Your task to perform on an android device: change the upload size in google photos Image 0: 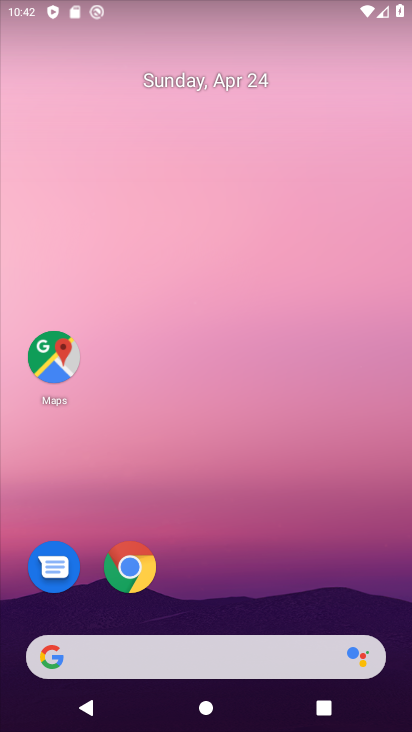
Step 0: drag from (296, 577) to (247, 69)
Your task to perform on an android device: change the upload size in google photos Image 1: 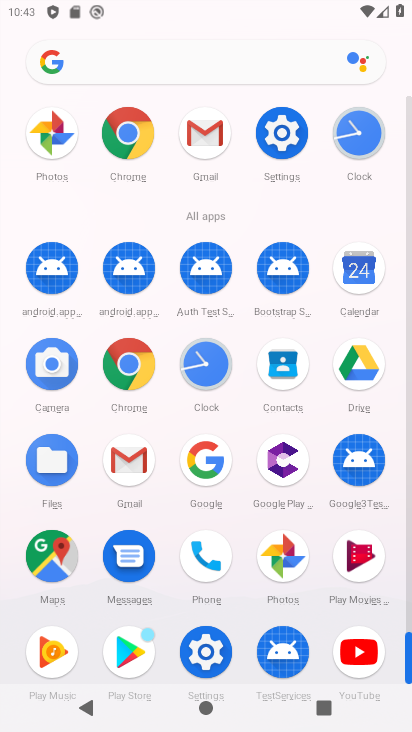
Step 1: click (286, 560)
Your task to perform on an android device: change the upload size in google photos Image 2: 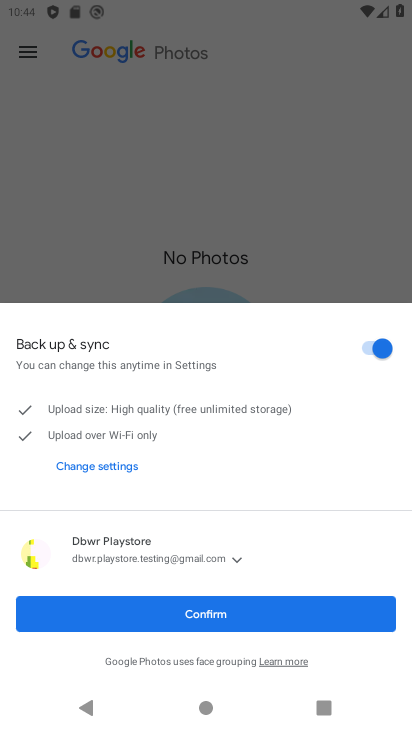
Step 2: click (220, 599)
Your task to perform on an android device: change the upload size in google photos Image 3: 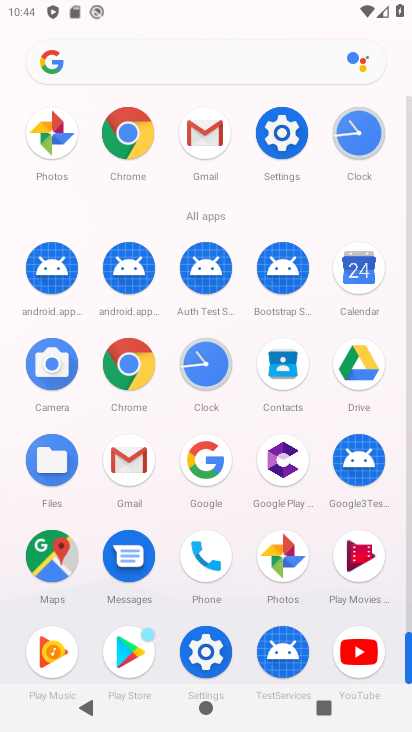
Step 3: click (290, 552)
Your task to perform on an android device: change the upload size in google photos Image 4: 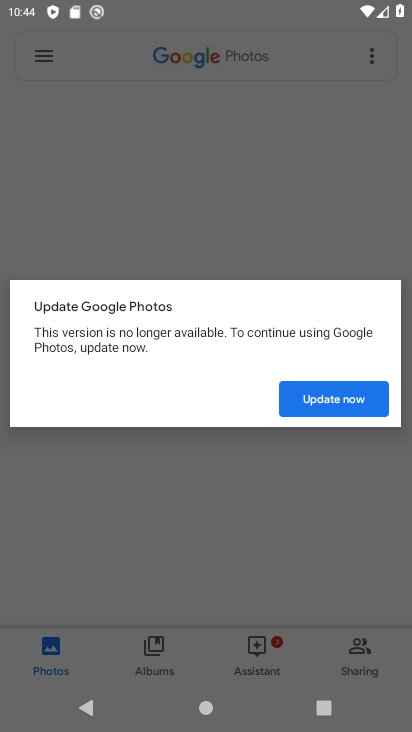
Step 4: click (344, 409)
Your task to perform on an android device: change the upload size in google photos Image 5: 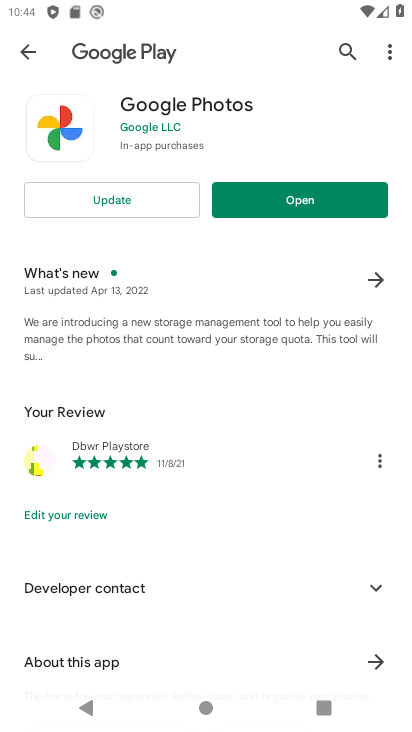
Step 5: click (169, 210)
Your task to perform on an android device: change the upload size in google photos Image 6: 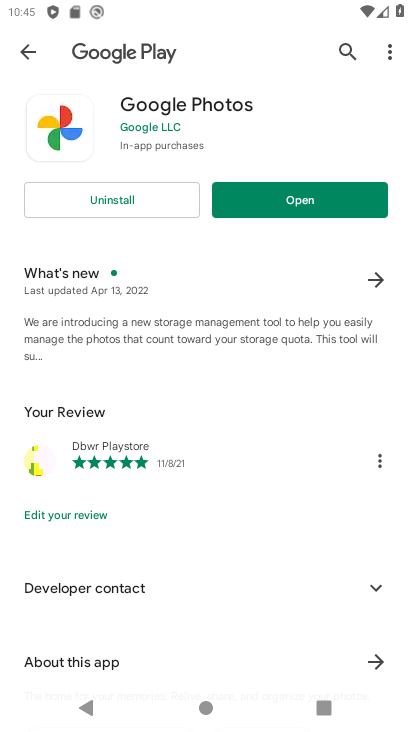
Step 6: click (300, 203)
Your task to perform on an android device: change the upload size in google photos Image 7: 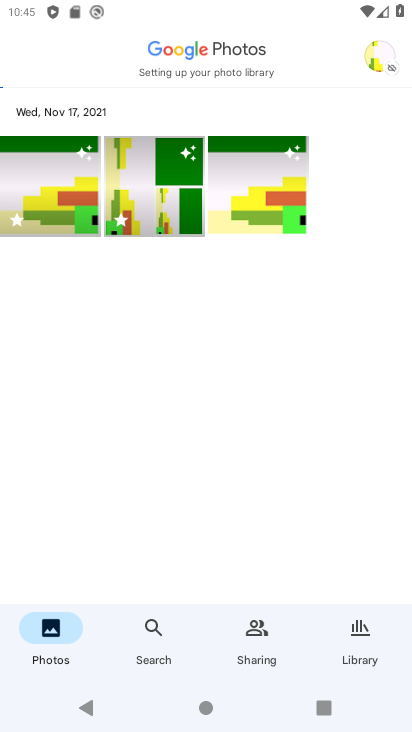
Step 7: click (388, 61)
Your task to perform on an android device: change the upload size in google photos Image 8: 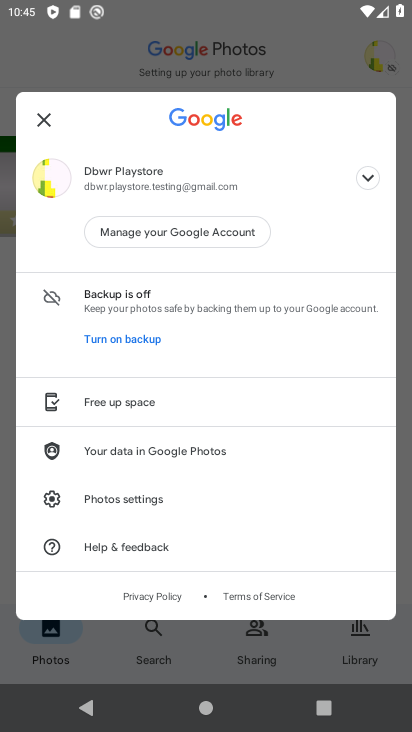
Step 8: click (349, 154)
Your task to perform on an android device: change the upload size in google photos Image 9: 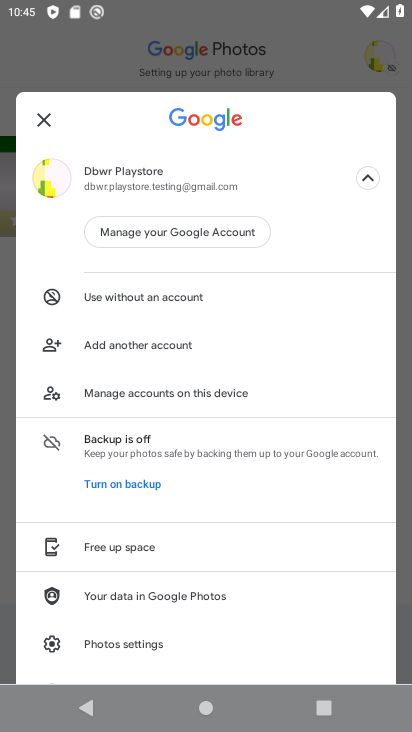
Step 9: drag from (166, 625) to (178, 301)
Your task to perform on an android device: change the upload size in google photos Image 10: 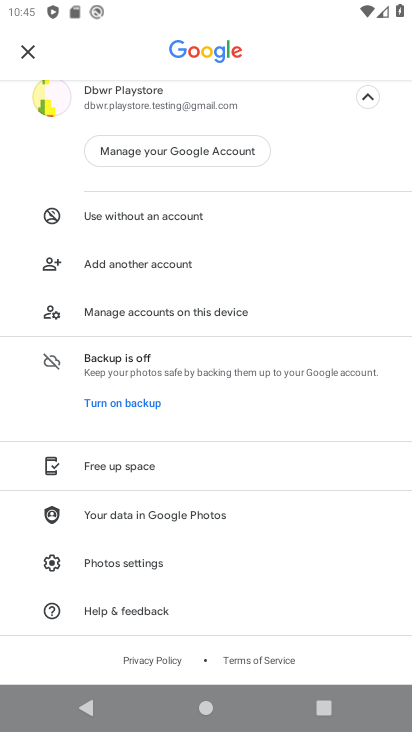
Step 10: click (156, 559)
Your task to perform on an android device: change the upload size in google photos Image 11: 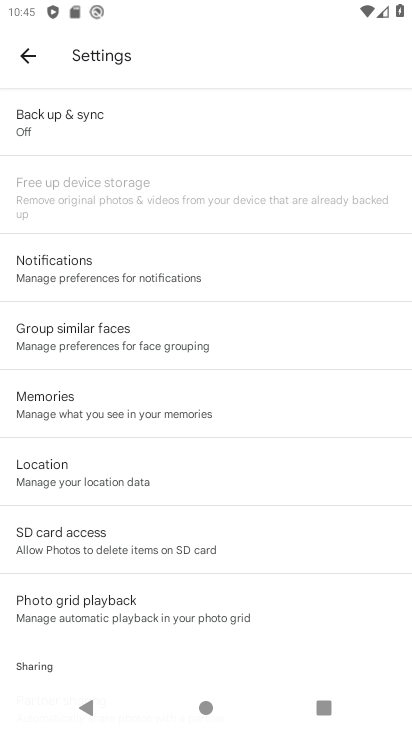
Step 11: click (103, 116)
Your task to perform on an android device: change the upload size in google photos Image 12: 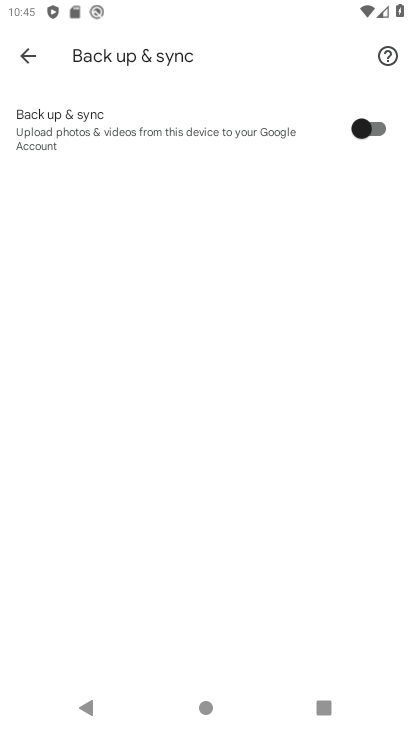
Step 12: click (371, 129)
Your task to perform on an android device: change the upload size in google photos Image 13: 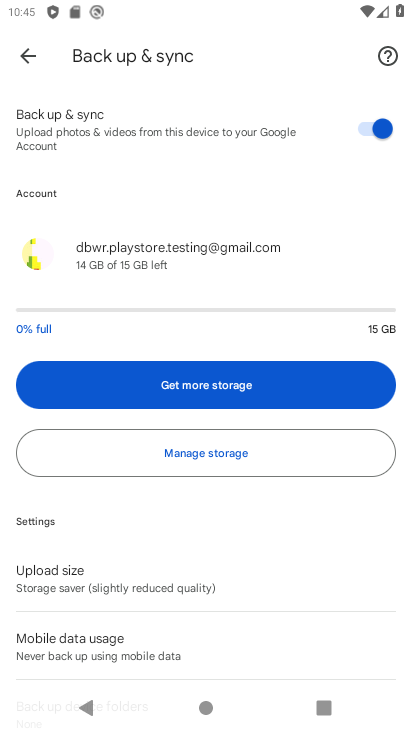
Step 13: click (131, 598)
Your task to perform on an android device: change the upload size in google photos Image 14: 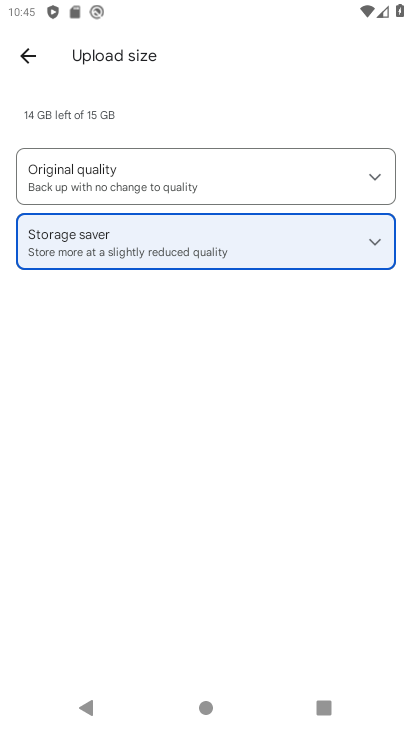
Step 14: click (220, 179)
Your task to perform on an android device: change the upload size in google photos Image 15: 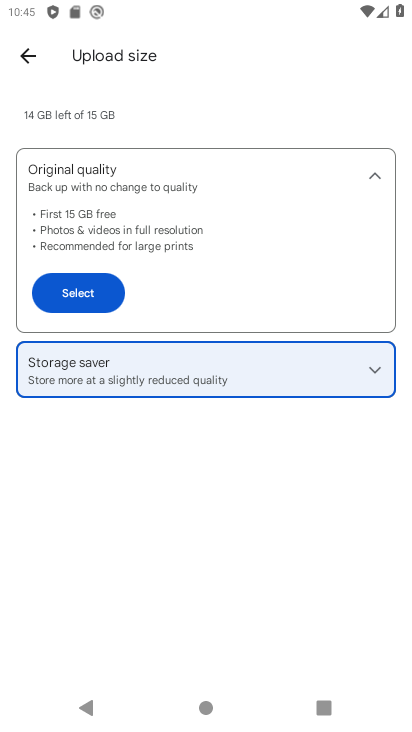
Step 15: click (89, 292)
Your task to perform on an android device: change the upload size in google photos Image 16: 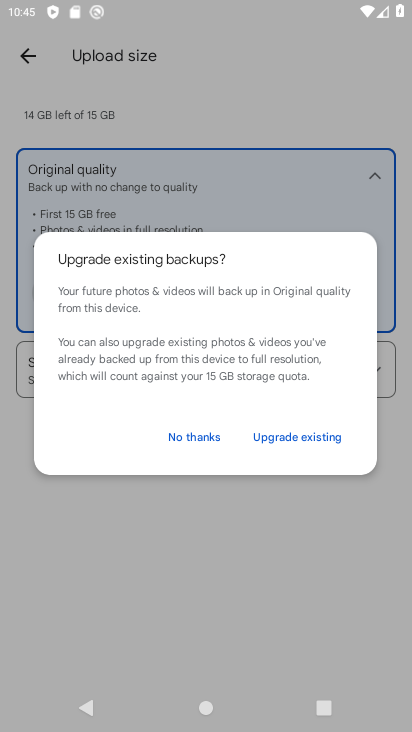
Step 16: click (285, 437)
Your task to perform on an android device: change the upload size in google photos Image 17: 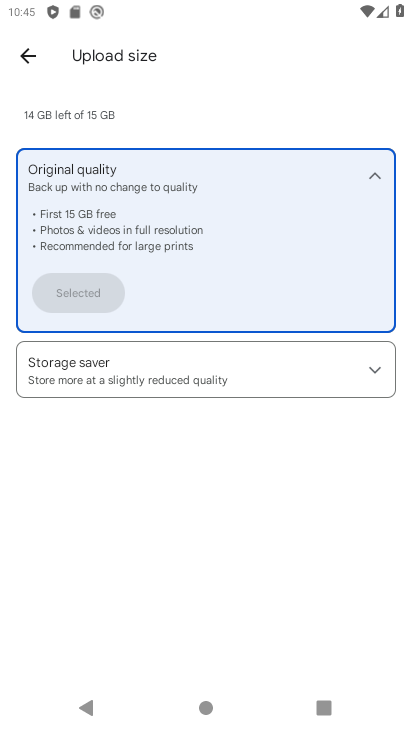
Step 17: task complete